Your task to perform on an android device: Do I have any events tomorrow? Image 0: 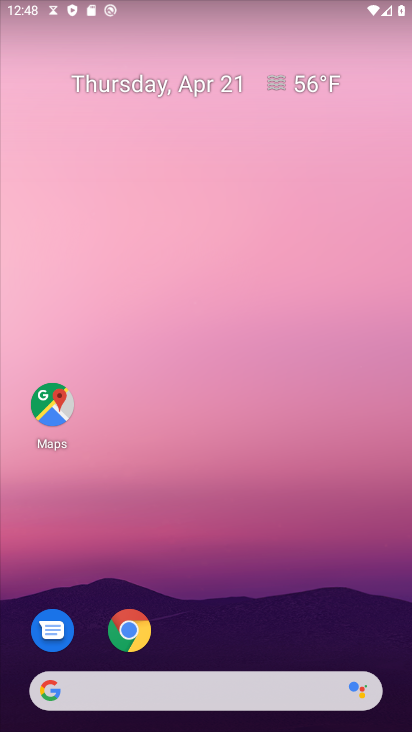
Step 0: drag from (224, 680) to (185, 149)
Your task to perform on an android device: Do I have any events tomorrow? Image 1: 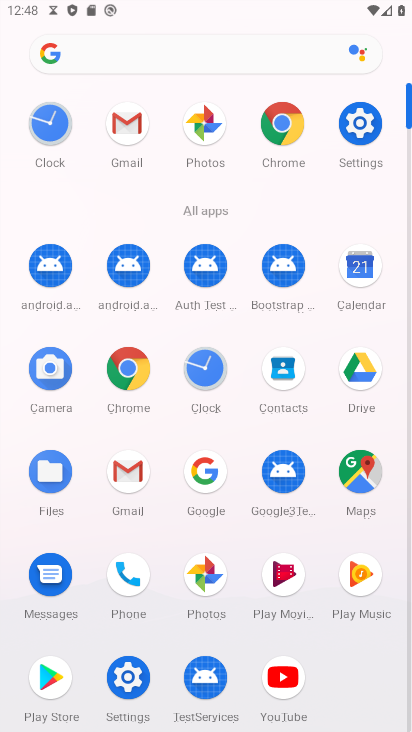
Step 1: click (364, 280)
Your task to perform on an android device: Do I have any events tomorrow? Image 2: 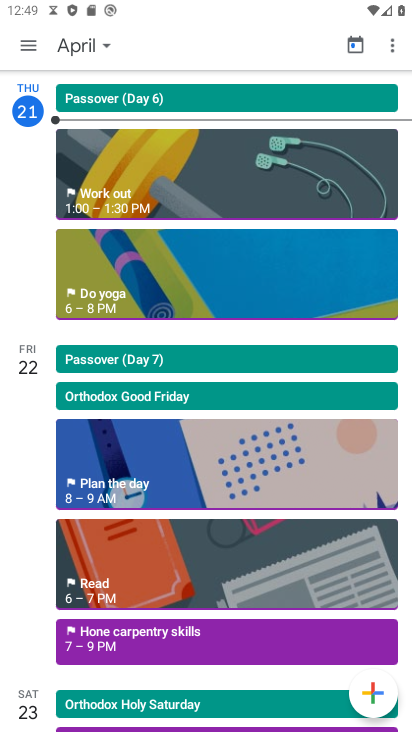
Step 2: task complete